Your task to perform on an android device: change notification settings in the gmail app Image 0: 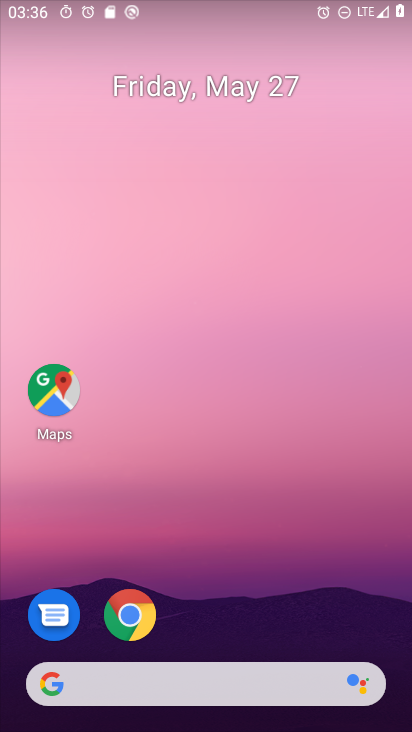
Step 0: drag from (361, 628) to (390, 172)
Your task to perform on an android device: change notification settings in the gmail app Image 1: 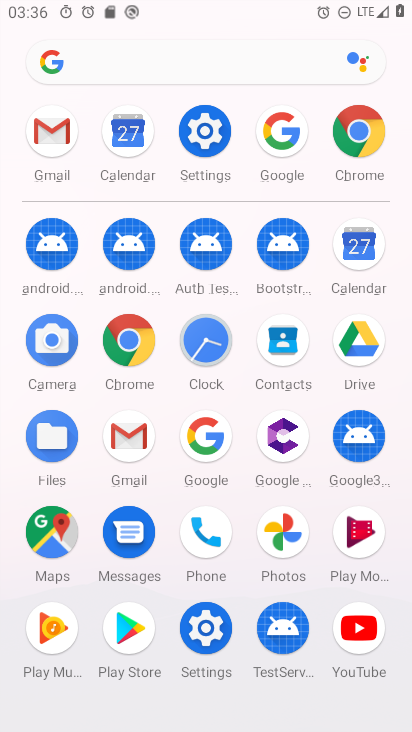
Step 1: click (137, 445)
Your task to perform on an android device: change notification settings in the gmail app Image 2: 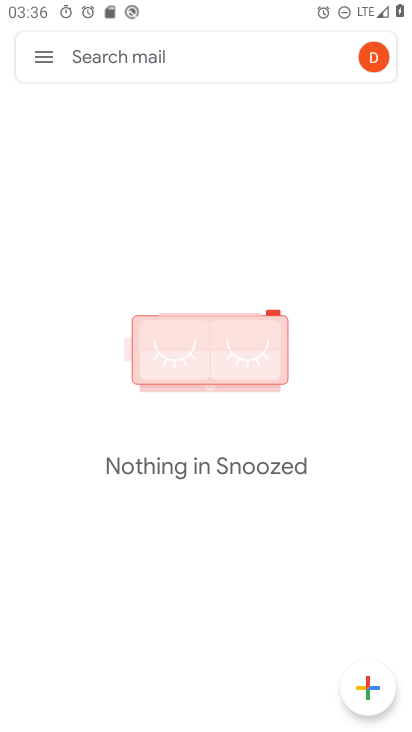
Step 2: click (50, 65)
Your task to perform on an android device: change notification settings in the gmail app Image 3: 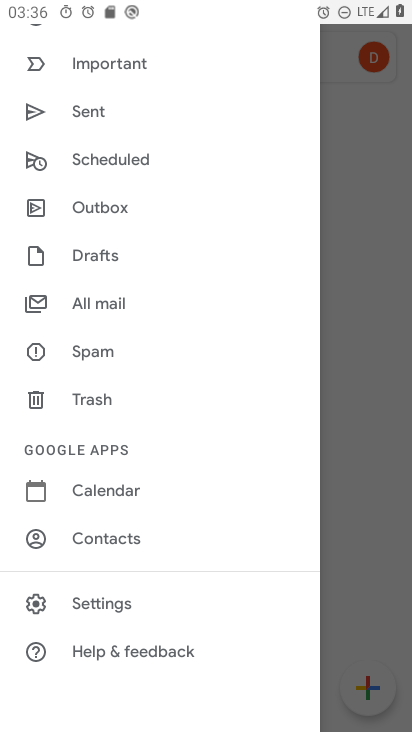
Step 3: click (131, 603)
Your task to perform on an android device: change notification settings in the gmail app Image 4: 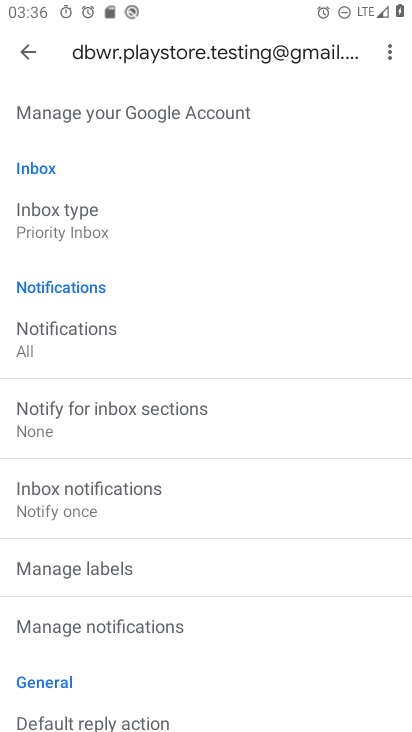
Step 4: click (127, 337)
Your task to perform on an android device: change notification settings in the gmail app Image 5: 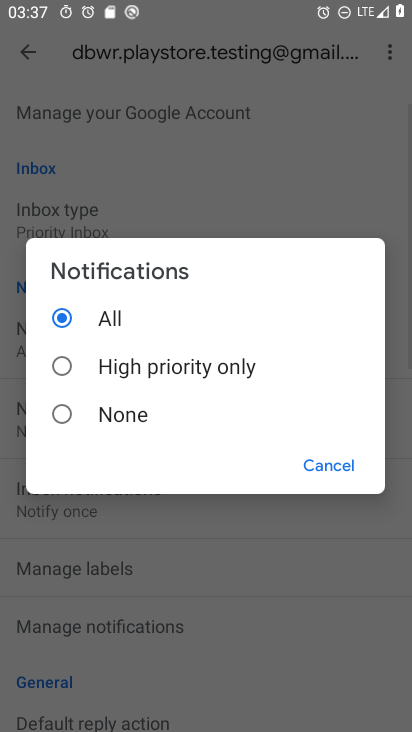
Step 5: click (149, 385)
Your task to perform on an android device: change notification settings in the gmail app Image 6: 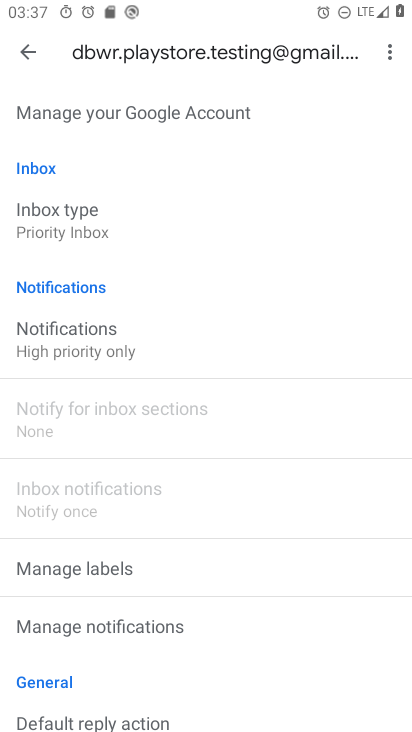
Step 6: task complete